Your task to perform on an android device: Do I have any events tomorrow? Image 0: 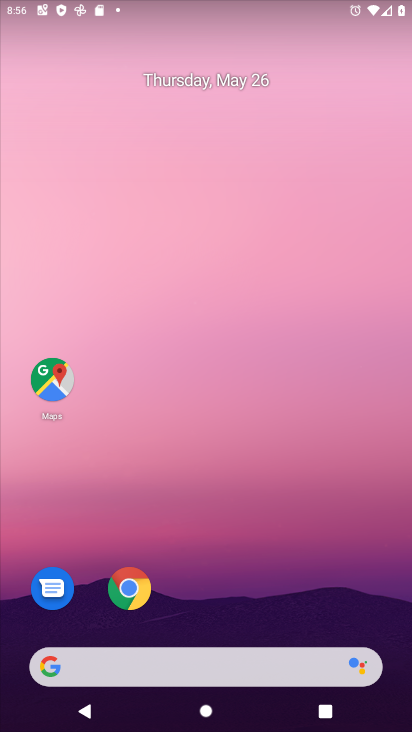
Step 0: drag from (335, 589) to (253, 54)
Your task to perform on an android device: Do I have any events tomorrow? Image 1: 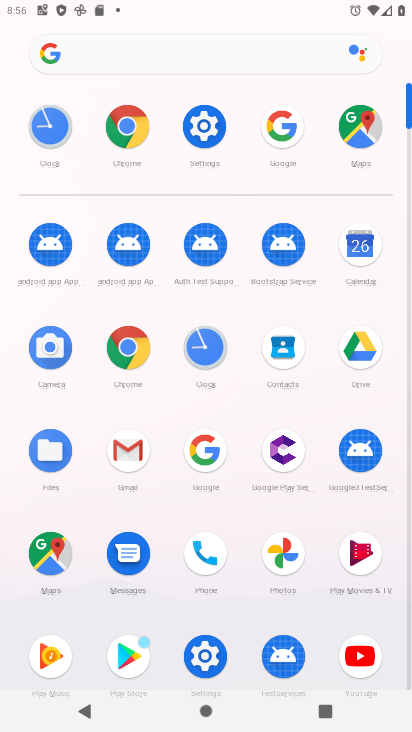
Step 1: click (367, 259)
Your task to perform on an android device: Do I have any events tomorrow? Image 2: 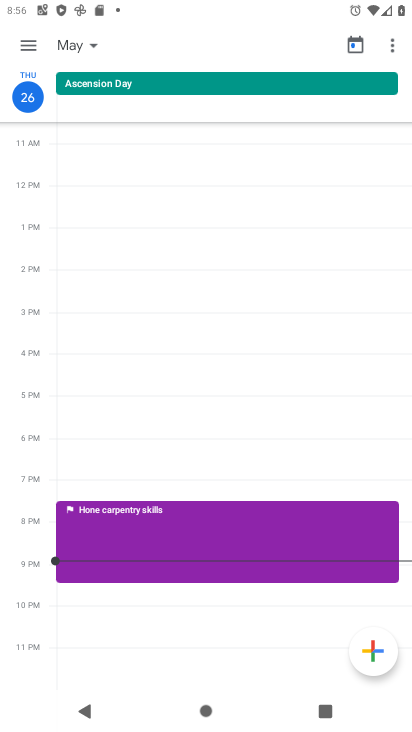
Step 2: click (78, 46)
Your task to perform on an android device: Do I have any events tomorrow? Image 3: 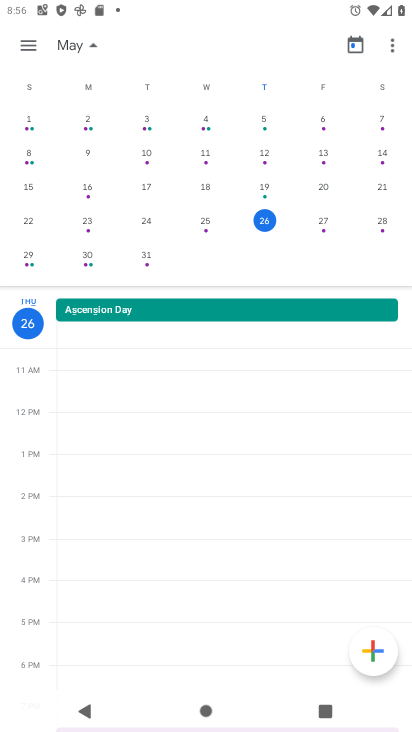
Step 3: click (381, 220)
Your task to perform on an android device: Do I have any events tomorrow? Image 4: 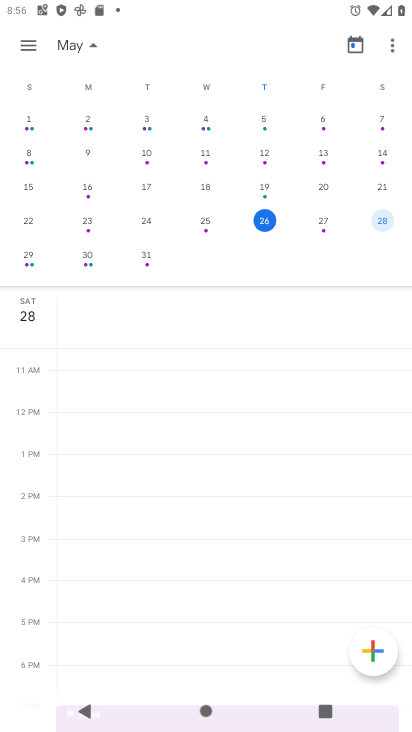
Step 4: task complete